Your task to perform on an android device: change timer sound Image 0: 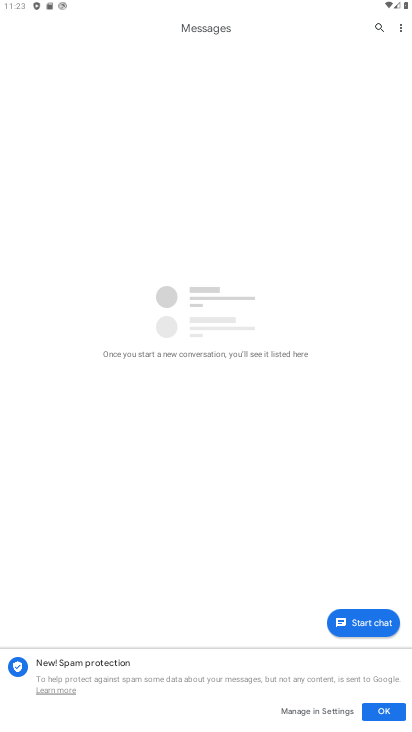
Step 0: press home button
Your task to perform on an android device: change timer sound Image 1: 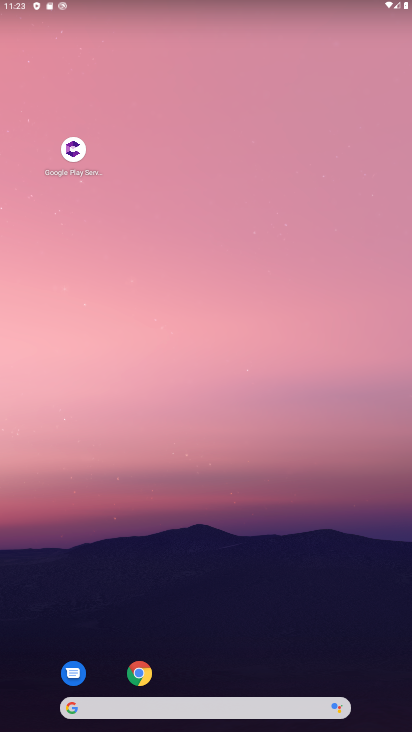
Step 1: drag from (213, 570) to (156, 154)
Your task to perform on an android device: change timer sound Image 2: 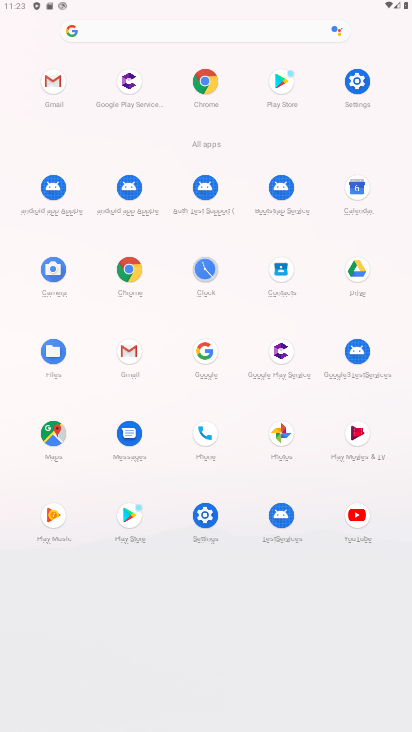
Step 2: click (203, 268)
Your task to perform on an android device: change timer sound Image 3: 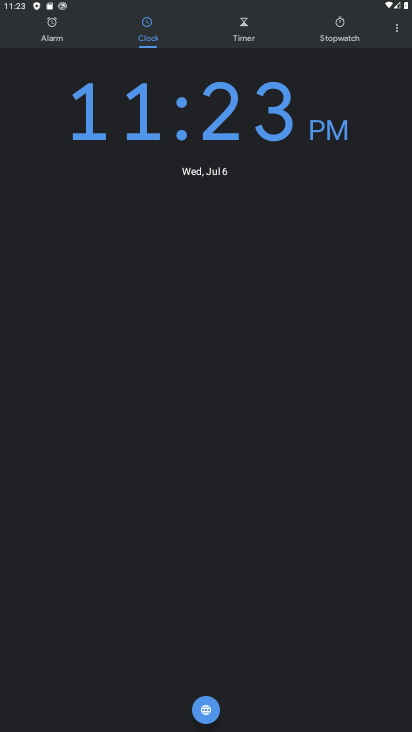
Step 3: click (397, 28)
Your task to perform on an android device: change timer sound Image 4: 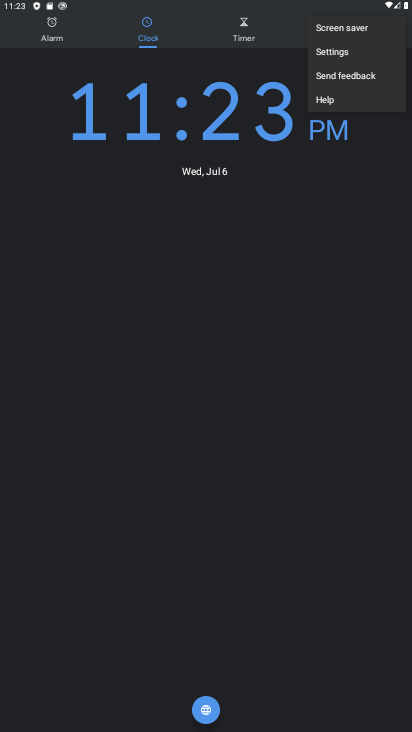
Step 4: click (337, 55)
Your task to perform on an android device: change timer sound Image 5: 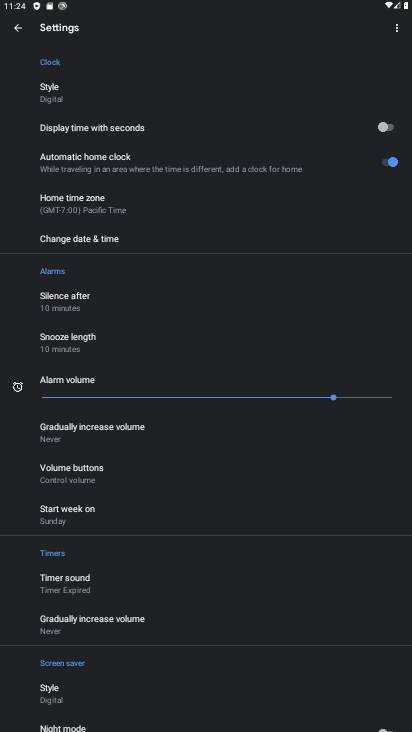
Step 5: click (65, 580)
Your task to perform on an android device: change timer sound Image 6: 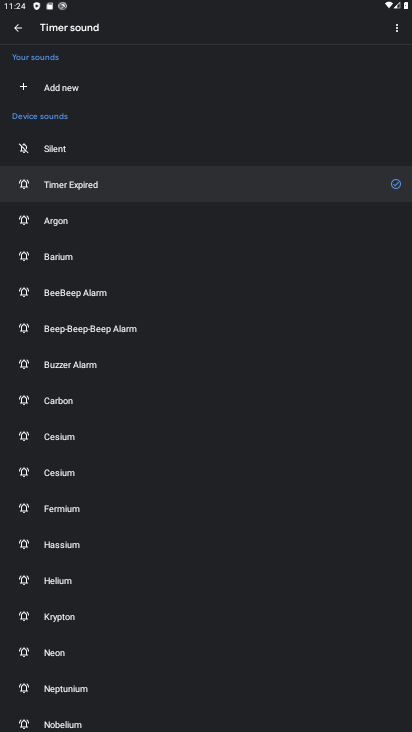
Step 6: click (41, 222)
Your task to perform on an android device: change timer sound Image 7: 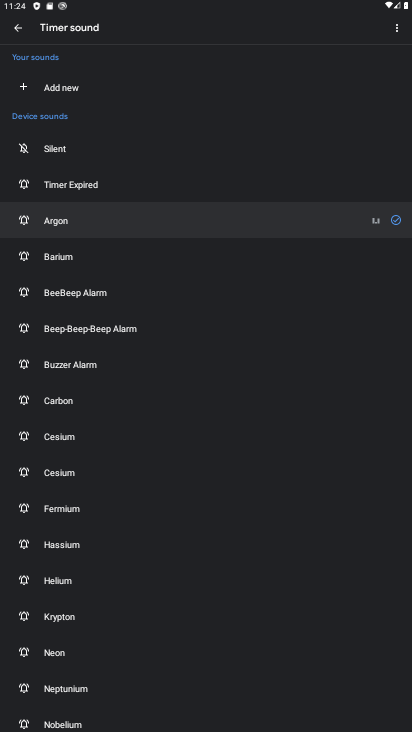
Step 7: task complete